Your task to perform on an android device: allow notifications from all sites in the chrome app Image 0: 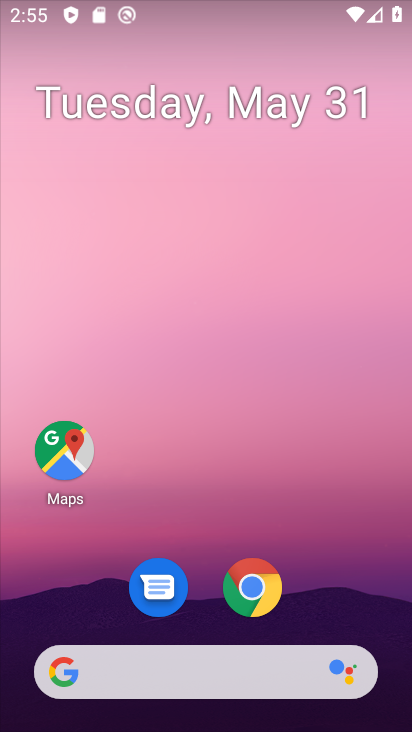
Step 0: click (251, 584)
Your task to perform on an android device: allow notifications from all sites in the chrome app Image 1: 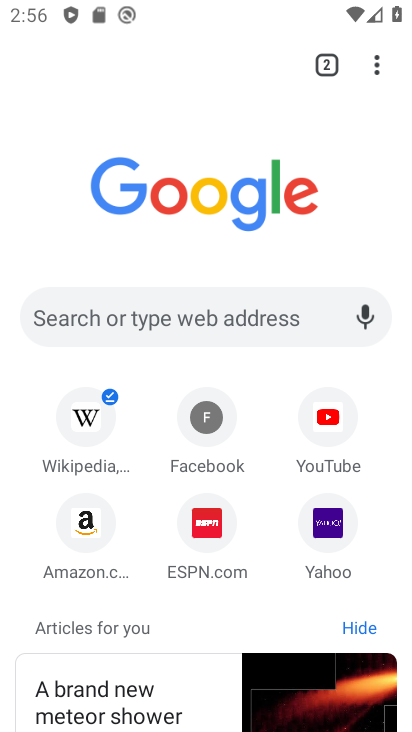
Step 1: click (379, 67)
Your task to perform on an android device: allow notifications from all sites in the chrome app Image 2: 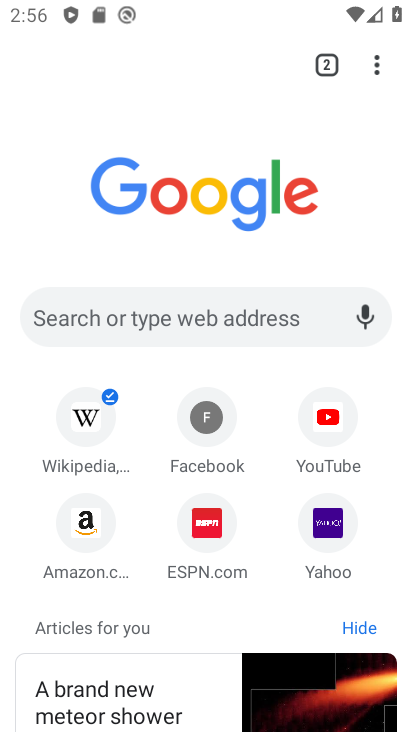
Step 2: click (380, 68)
Your task to perform on an android device: allow notifications from all sites in the chrome app Image 3: 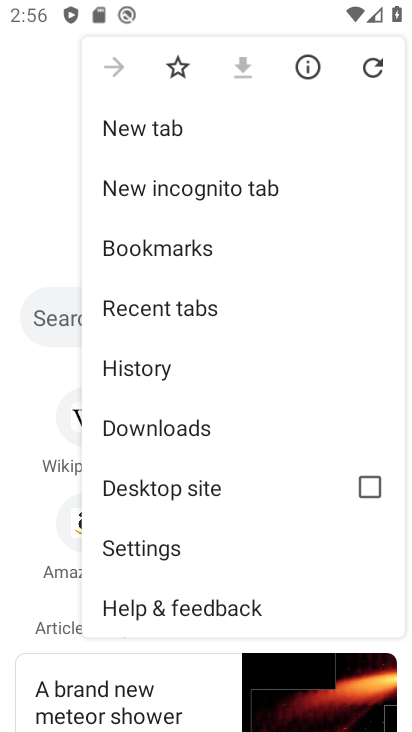
Step 3: click (131, 542)
Your task to perform on an android device: allow notifications from all sites in the chrome app Image 4: 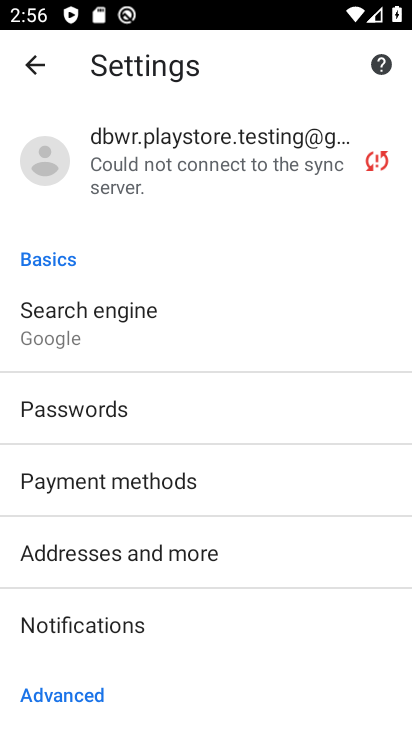
Step 4: click (147, 633)
Your task to perform on an android device: allow notifications from all sites in the chrome app Image 5: 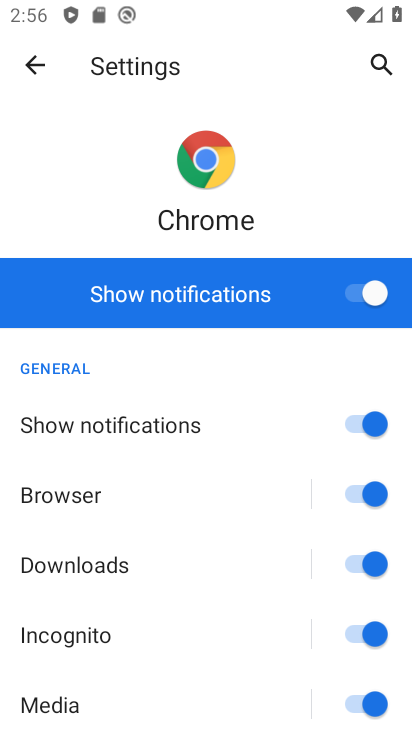
Step 5: task complete